Your task to perform on an android device: Play the last video I watched on Youtube Image 0: 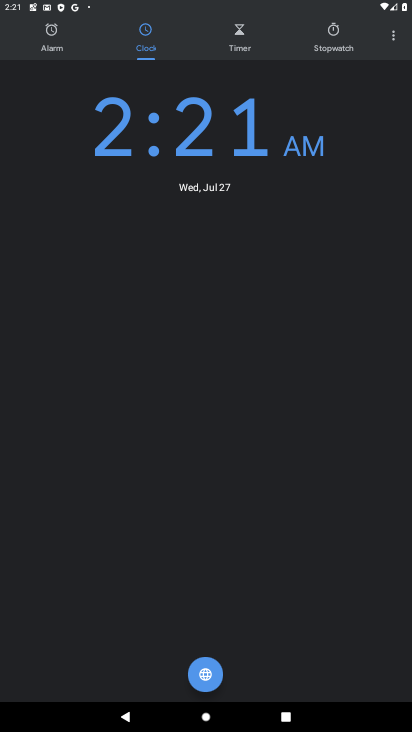
Step 0: task complete